Your task to perform on an android device: allow cookies in the chrome app Image 0: 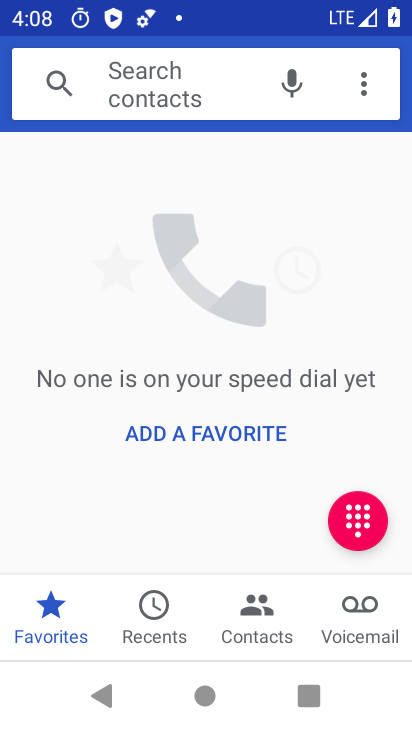
Step 0: press home button
Your task to perform on an android device: allow cookies in the chrome app Image 1: 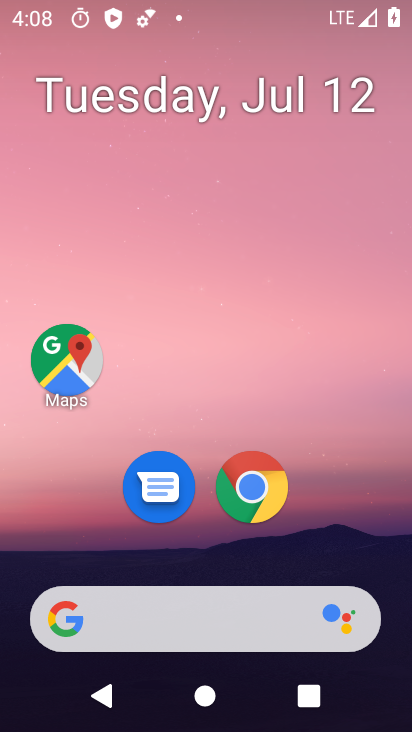
Step 1: drag from (262, 589) to (300, 77)
Your task to perform on an android device: allow cookies in the chrome app Image 2: 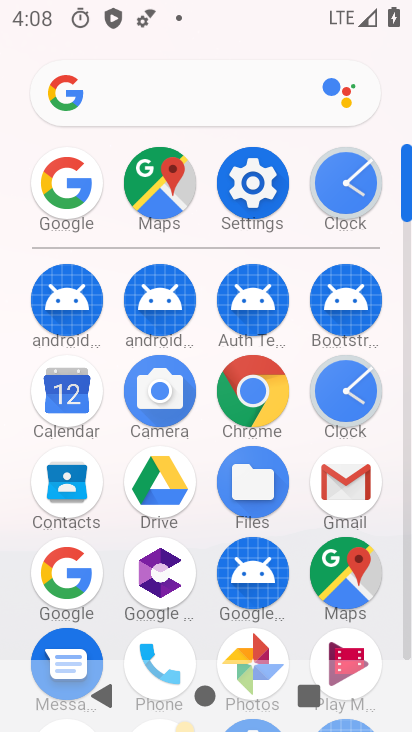
Step 2: click (257, 394)
Your task to perform on an android device: allow cookies in the chrome app Image 3: 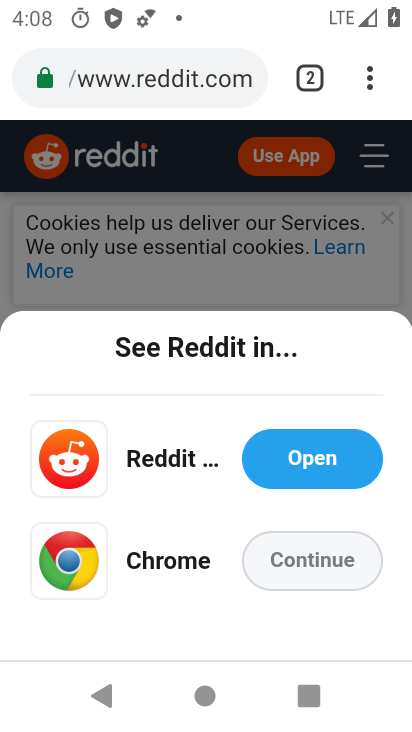
Step 3: click (375, 83)
Your task to perform on an android device: allow cookies in the chrome app Image 4: 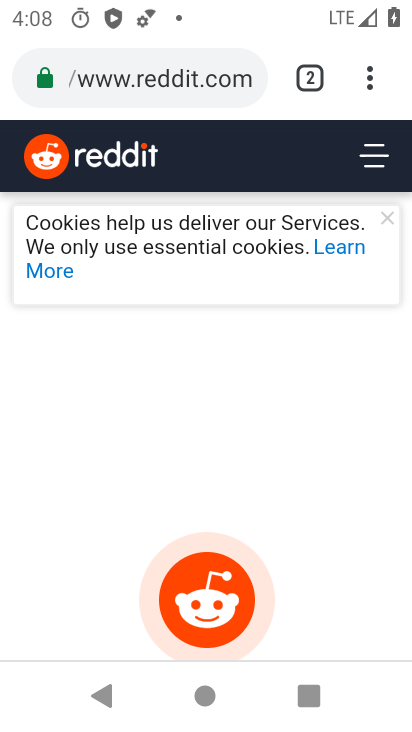
Step 4: click (375, 83)
Your task to perform on an android device: allow cookies in the chrome app Image 5: 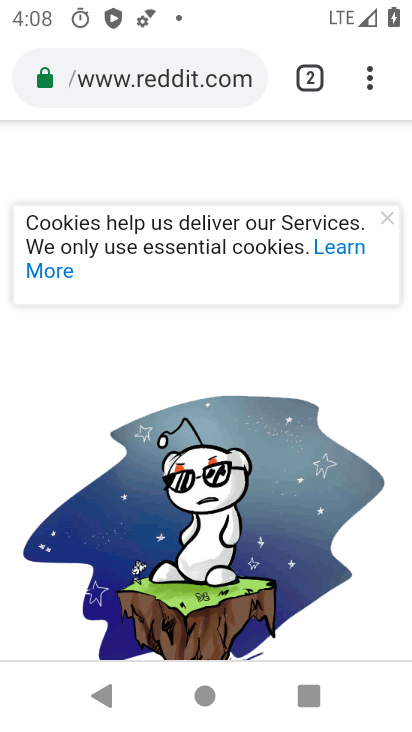
Step 5: click (376, 83)
Your task to perform on an android device: allow cookies in the chrome app Image 6: 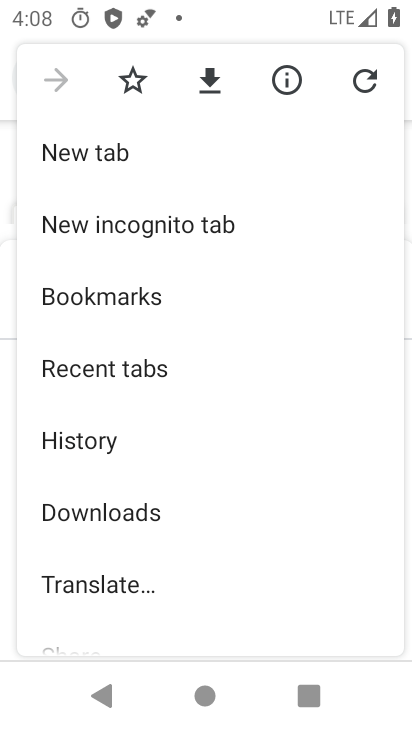
Step 6: drag from (130, 528) to (86, 249)
Your task to perform on an android device: allow cookies in the chrome app Image 7: 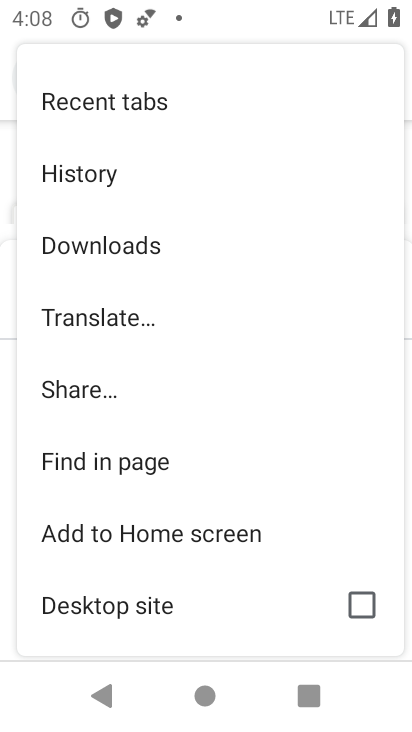
Step 7: drag from (130, 607) to (112, 214)
Your task to perform on an android device: allow cookies in the chrome app Image 8: 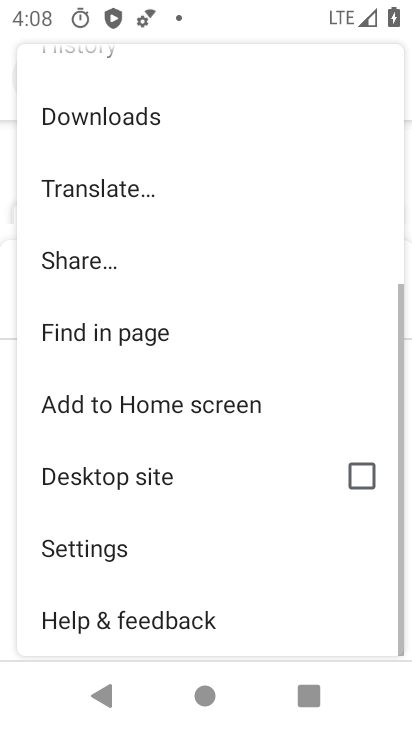
Step 8: click (133, 558)
Your task to perform on an android device: allow cookies in the chrome app Image 9: 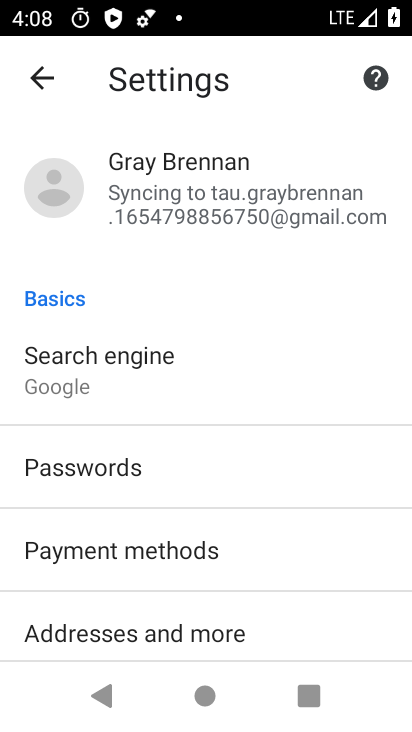
Step 9: drag from (232, 588) to (259, 308)
Your task to perform on an android device: allow cookies in the chrome app Image 10: 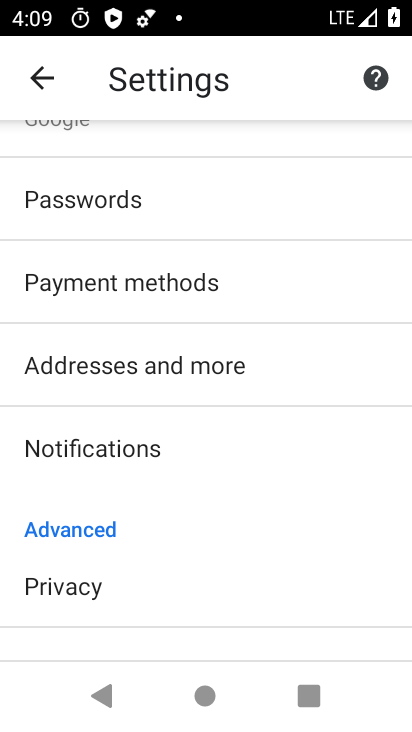
Step 10: drag from (220, 533) to (258, 346)
Your task to perform on an android device: allow cookies in the chrome app Image 11: 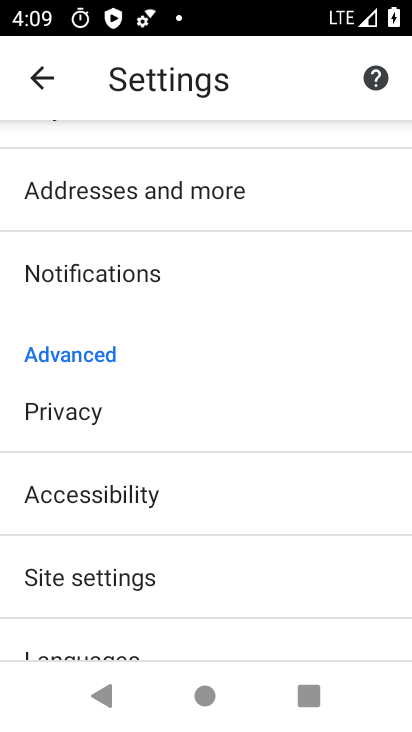
Step 11: click (112, 587)
Your task to perform on an android device: allow cookies in the chrome app Image 12: 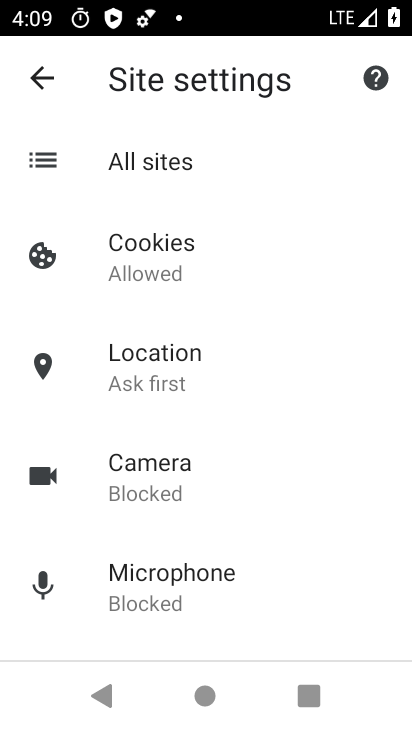
Step 12: drag from (142, 554) to (178, 215)
Your task to perform on an android device: allow cookies in the chrome app Image 13: 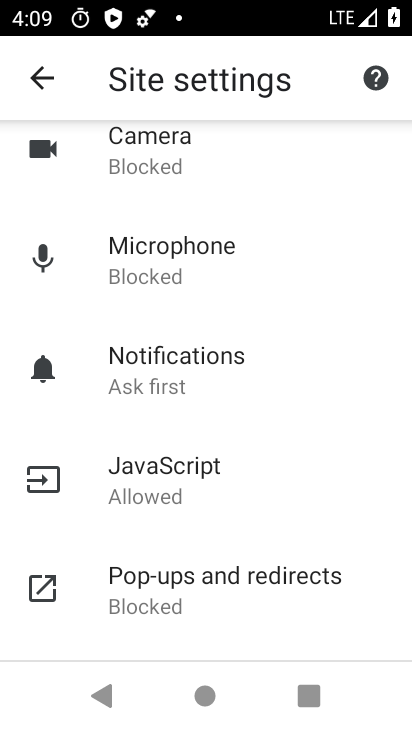
Step 13: drag from (221, 315) to (217, 585)
Your task to perform on an android device: allow cookies in the chrome app Image 14: 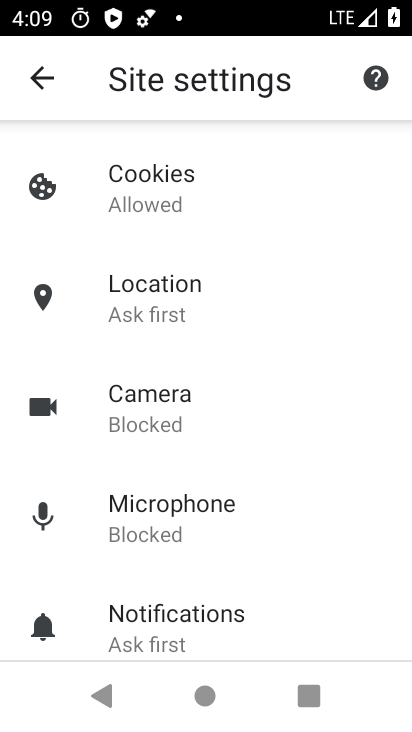
Step 14: drag from (204, 309) to (199, 511)
Your task to perform on an android device: allow cookies in the chrome app Image 15: 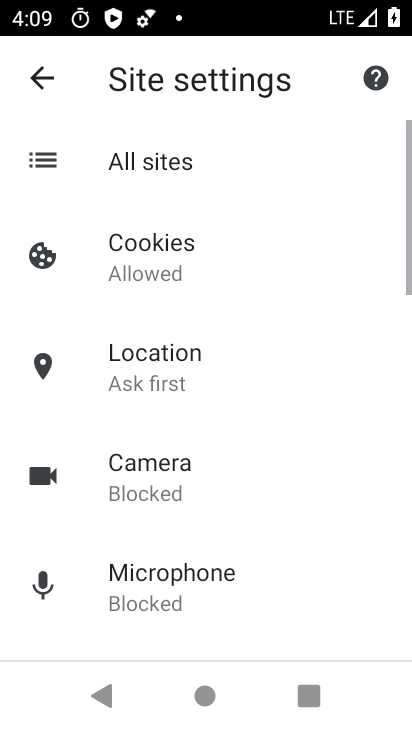
Step 15: click (221, 258)
Your task to perform on an android device: allow cookies in the chrome app Image 16: 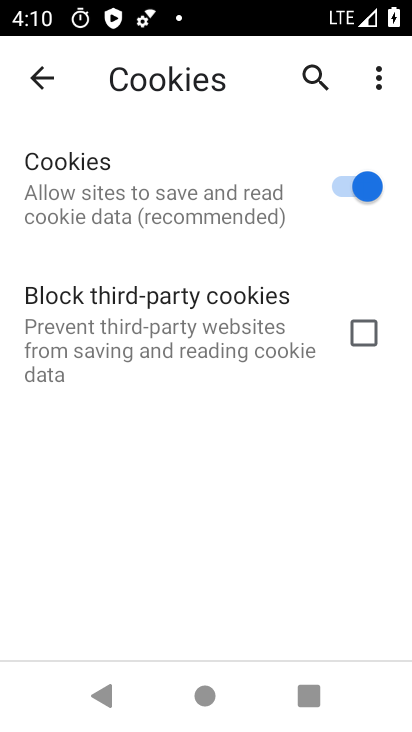
Step 16: task complete